Your task to perform on an android device: Go to notification settings Image 0: 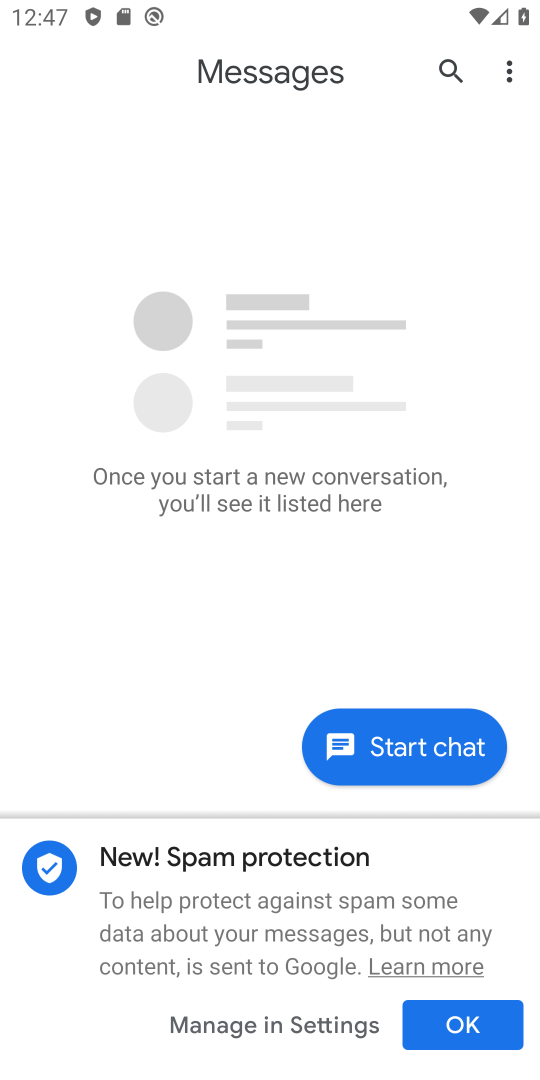
Step 0: press back button
Your task to perform on an android device: Go to notification settings Image 1: 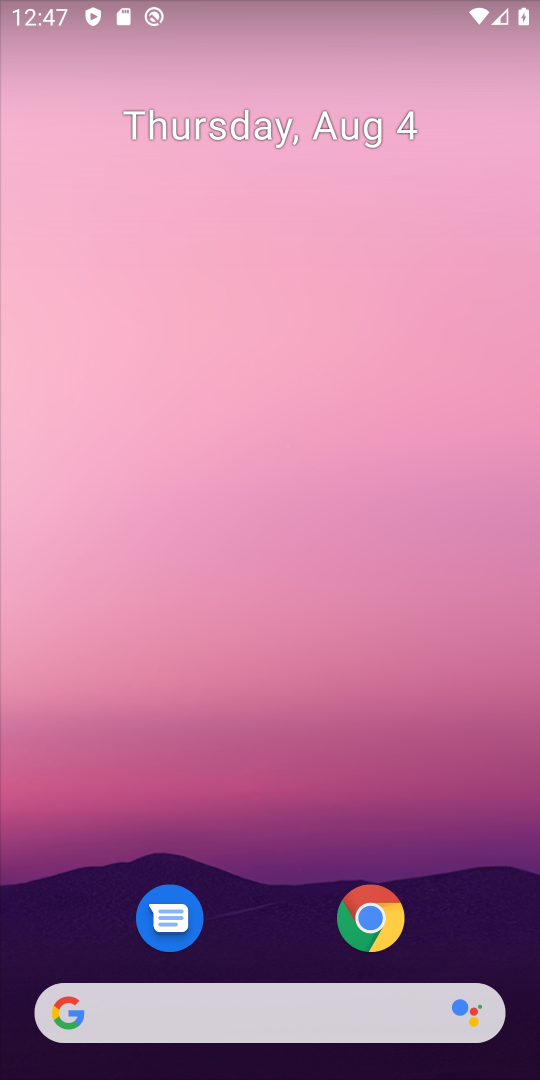
Step 1: drag from (252, 906) to (286, 230)
Your task to perform on an android device: Go to notification settings Image 2: 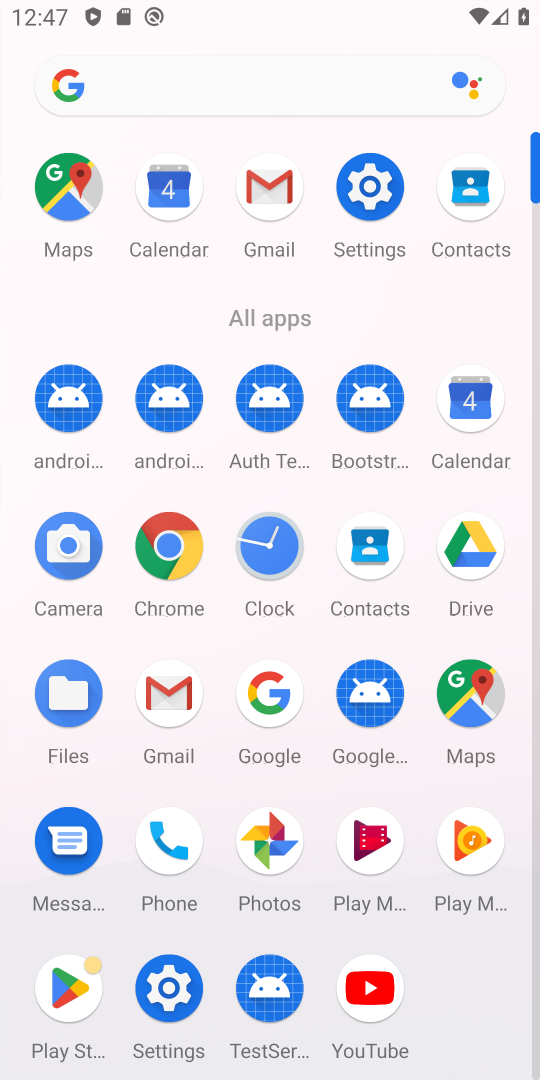
Step 2: click (361, 218)
Your task to perform on an android device: Go to notification settings Image 3: 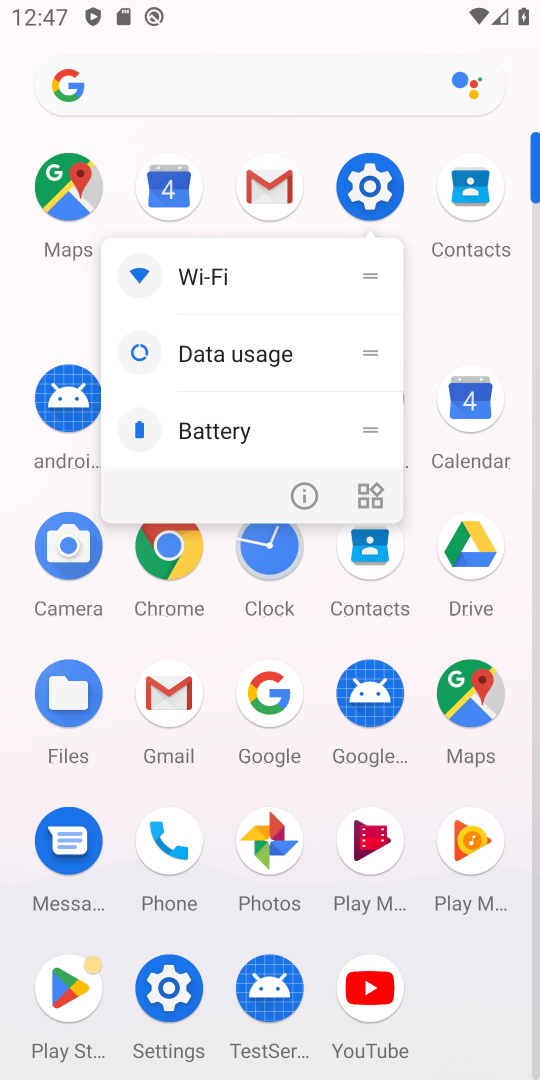
Step 3: click (363, 205)
Your task to perform on an android device: Go to notification settings Image 4: 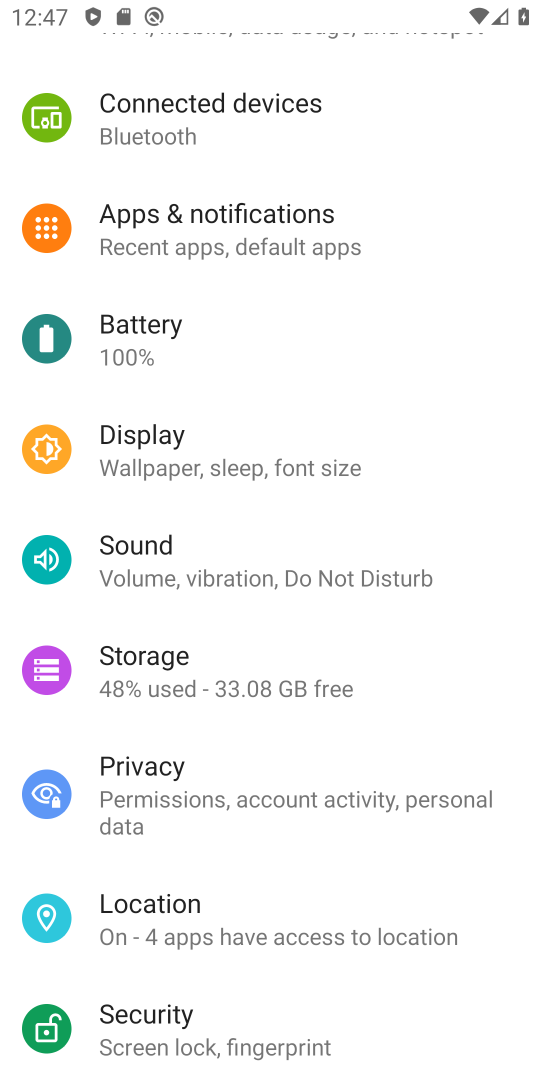
Step 4: click (269, 254)
Your task to perform on an android device: Go to notification settings Image 5: 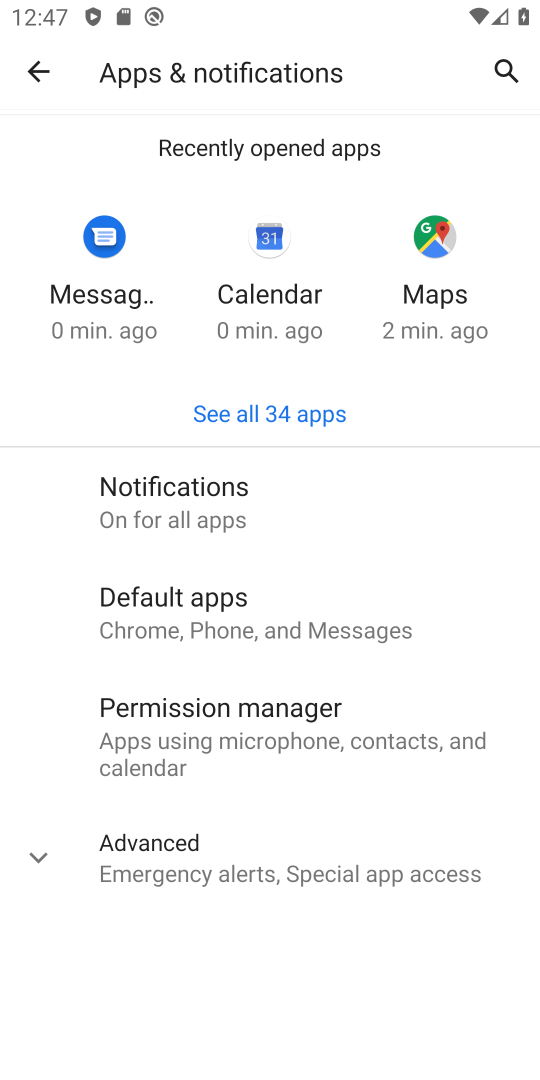
Step 5: click (250, 523)
Your task to perform on an android device: Go to notification settings Image 6: 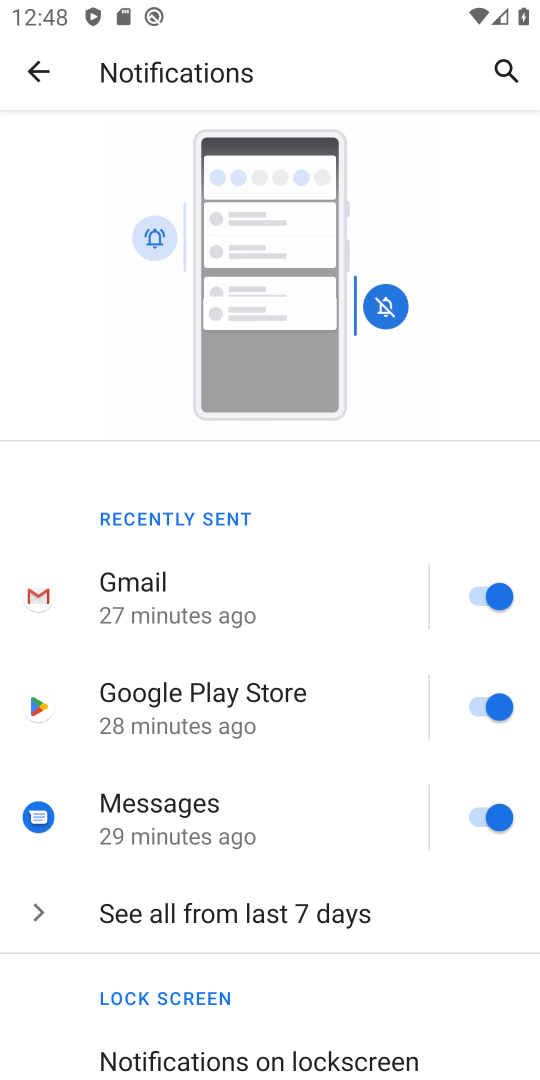
Step 6: task complete